Your task to perform on an android device: turn on the 12-hour format for clock Image 0: 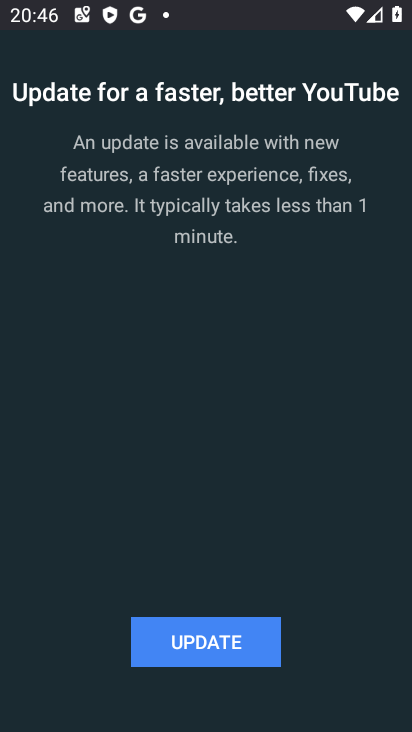
Step 0: press home button
Your task to perform on an android device: turn on the 12-hour format for clock Image 1: 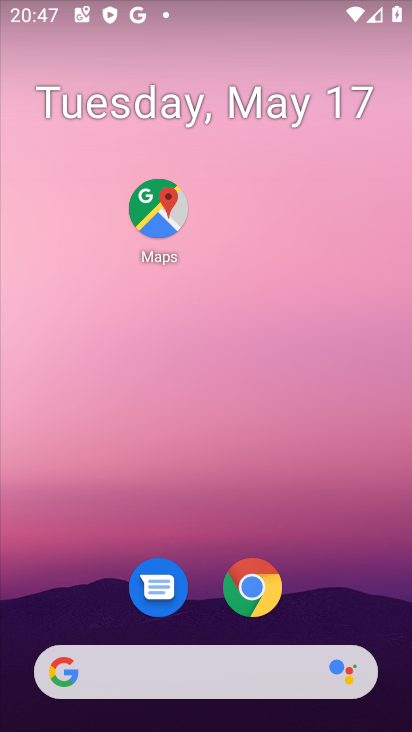
Step 1: drag from (91, 726) to (261, 268)
Your task to perform on an android device: turn on the 12-hour format for clock Image 2: 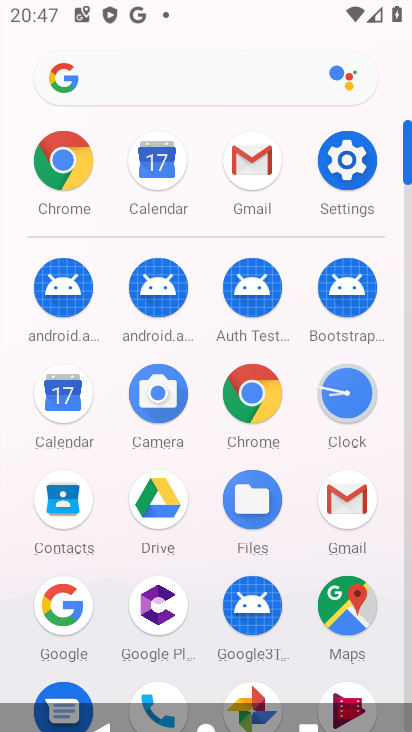
Step 2: click (334, 410)
Your task to perform on an android device: turn on the 12-hour format for clock Image 3: 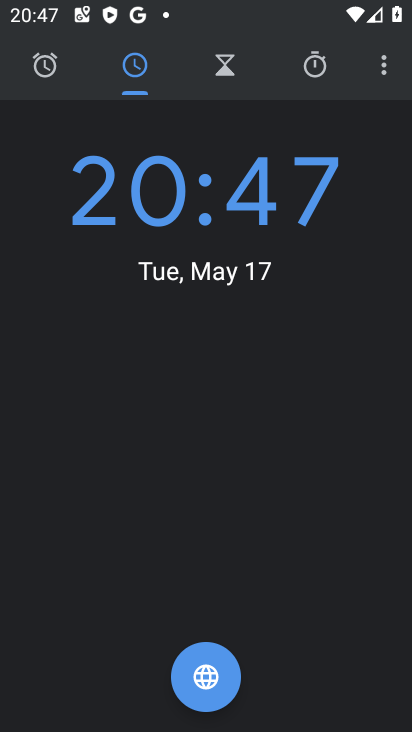
Step 3: click (384, 64)
Your task to perform on an android device: turn on the 12-hour format for clock Image 4: 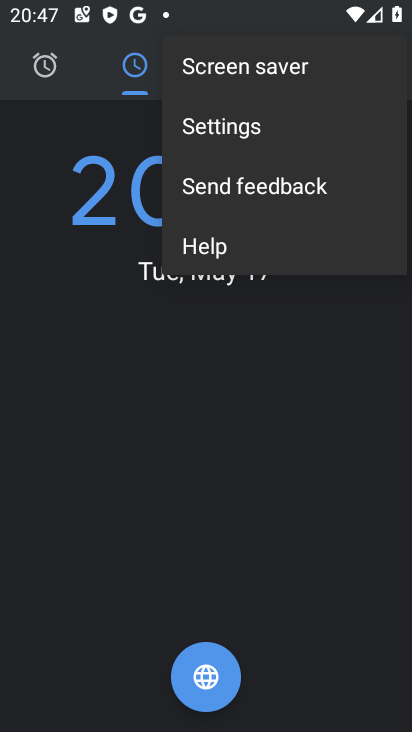
Step 4: click (266, 128)
Your task to perform on an android device: turn on the 12-hour format for clock Image 5: 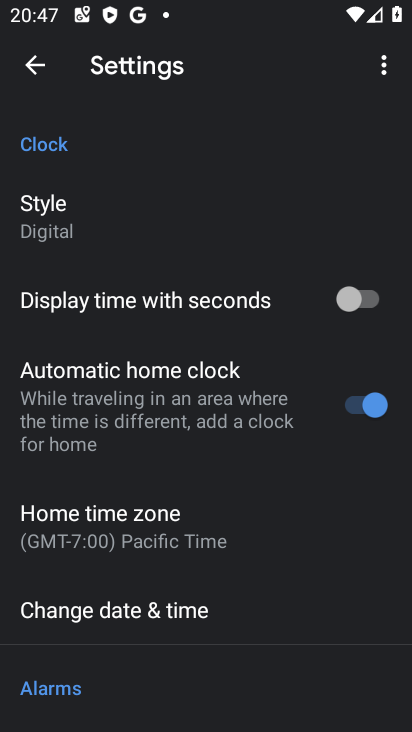
Step 5: click (90, 608)
Your task to perform on an android device: turn on the 12-hour format for clock Image 6: 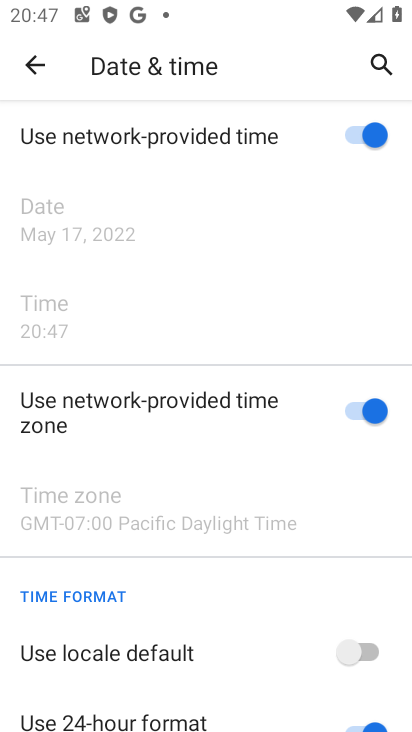
Step 6: drag from (181, 726) to (143, 350)
Your task to perform on an android device: turn on the 12-hour format for clock Image 7: 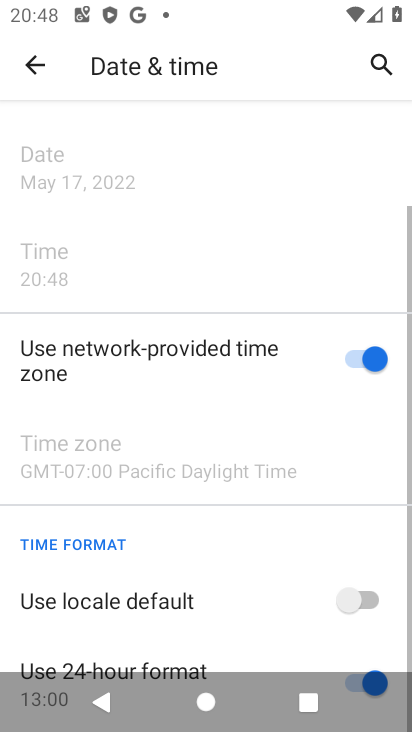
Step 7: drag from (28, 512) to (191, 275)
Your task to perform on an android device: turn on the 12-hour format for clock Image 8: 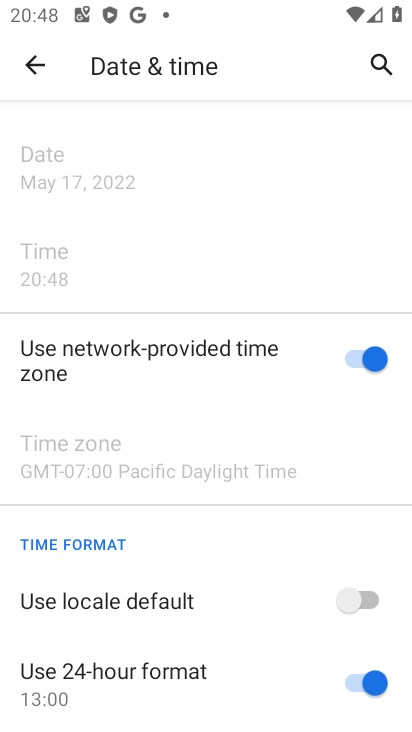
Step 8: click (375, 671)
Your task to perform on an android device: turn on the 12-hour format for clock Image 9: 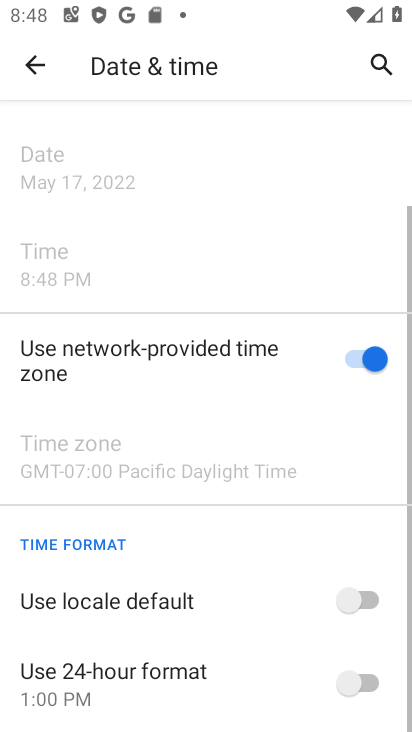
Step 9: click (354, 609)
Your task to perform on an android device: turn on the 12-hour format for clock Image 10: 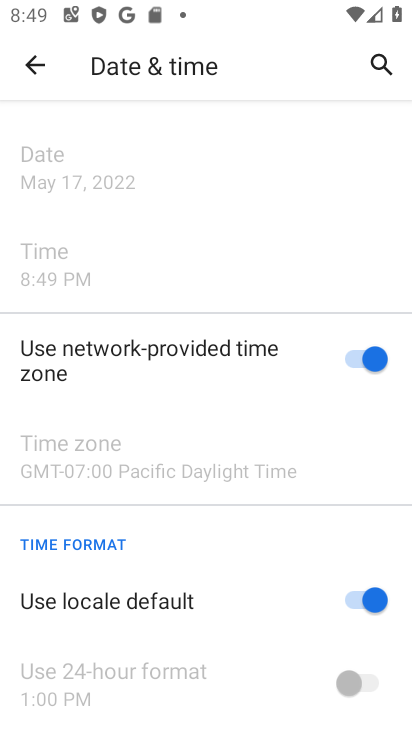
Step 10: task complete